Your task to perform on an android device: change notifications settings Image 0: 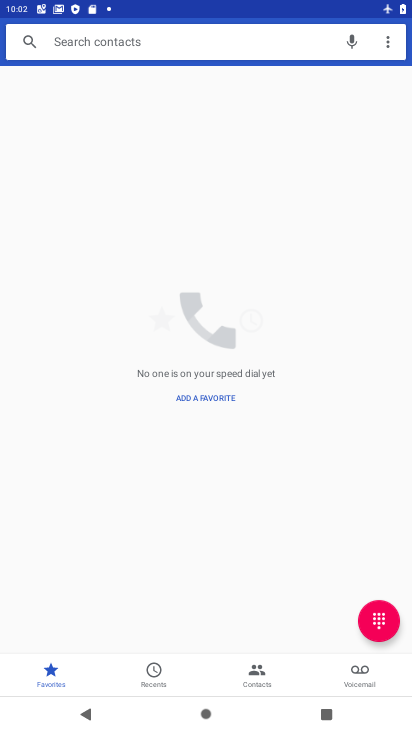
Step 0: press home button
Your task to perform on an android device: change notifications settings Image 1: 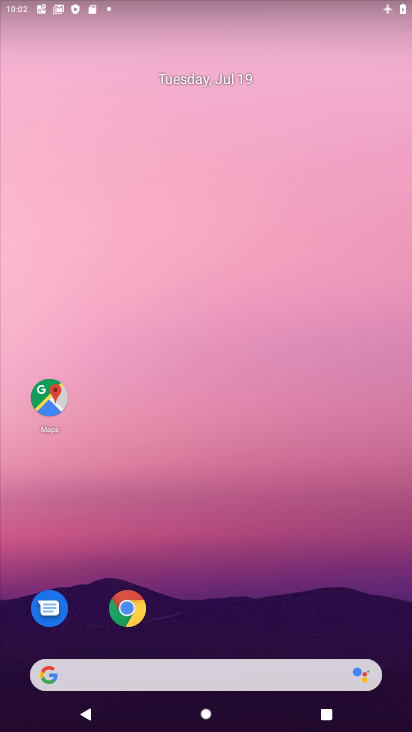
Step 1: drag from (339, 589) to (142, 90)
Your task to perform on an android device: change notifications settings Image 2: 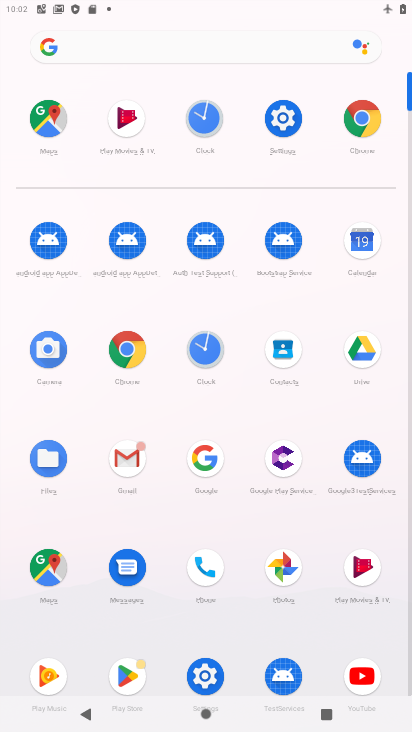
Step 2: click (294, 106)
Your task to perform on an android device: change notifications settings Image 3: 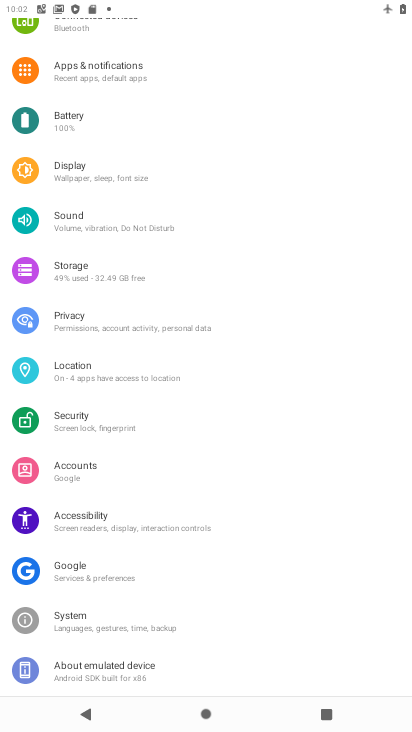
Step 3: click (104, 72)
Your task to perform on an android device: change notifications settings Image 4: 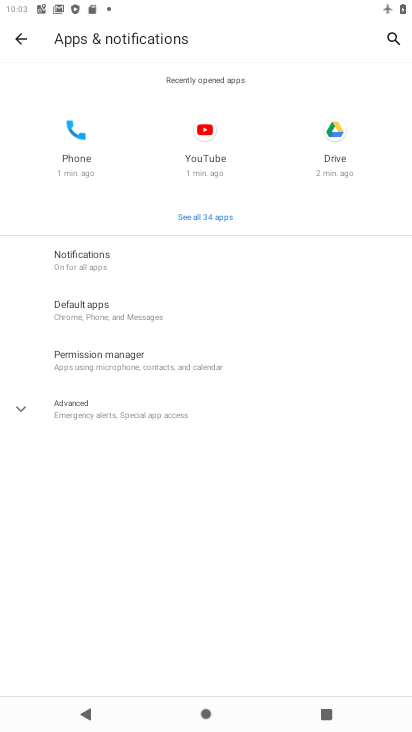
Step 4: click (87, 260)
Your task to perform on an android device: change notifications settings Image 5: 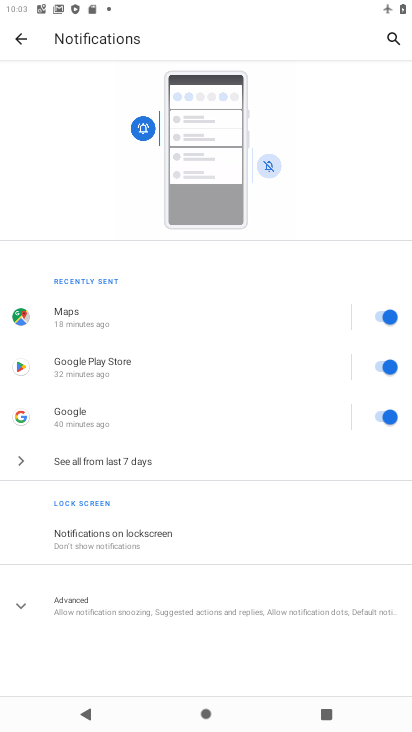
Step 5: click (183, 589)
Your task to perform on an android device: change notifications settings Image 6: 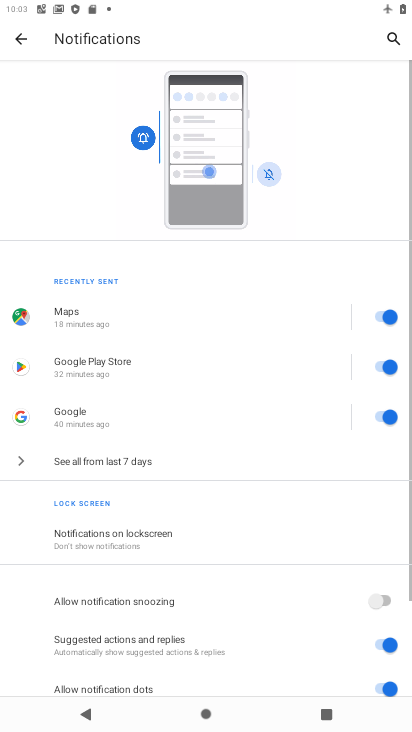
Step 6: task complete